Your task to perform on an android device: add a contact in the contacts app Image 0: 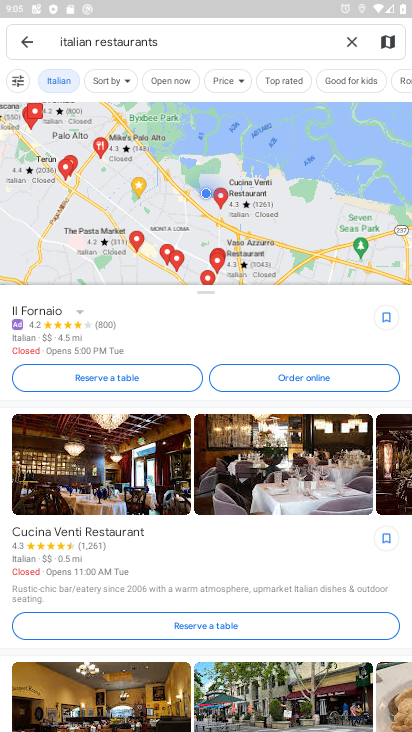
Step 0: press home button
Your task to perform on an android device: add a contact in the contacts app Image 1: 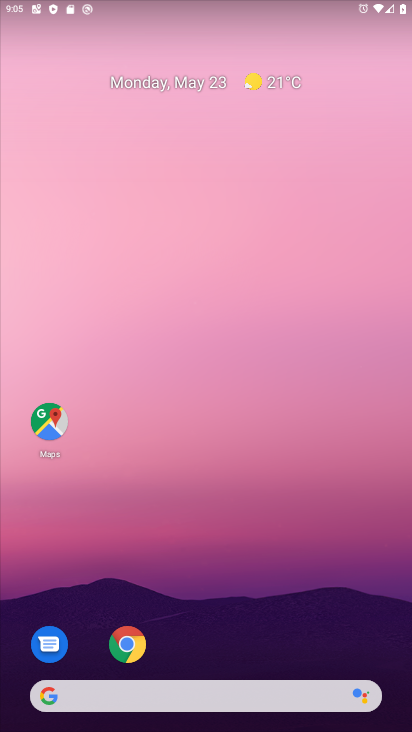
Step 1: drag from (288, 731) to (252, 1)
Your task to perform on an android device: add a contact in the contacts app Image 2: 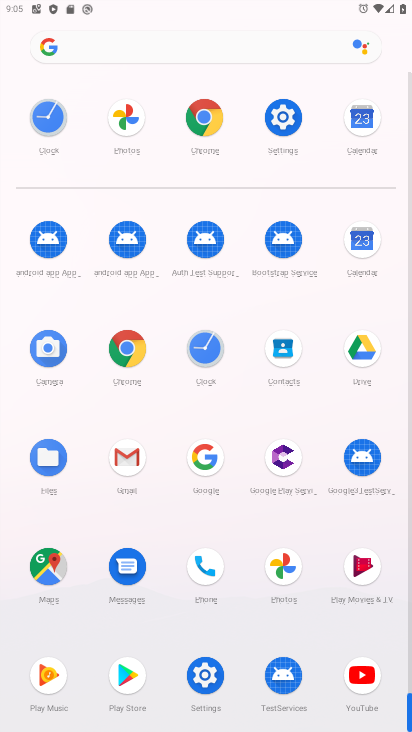
Step 2: click (278, 359)
Your task to perform on an android device: add a contact in the contacts app Image 3: 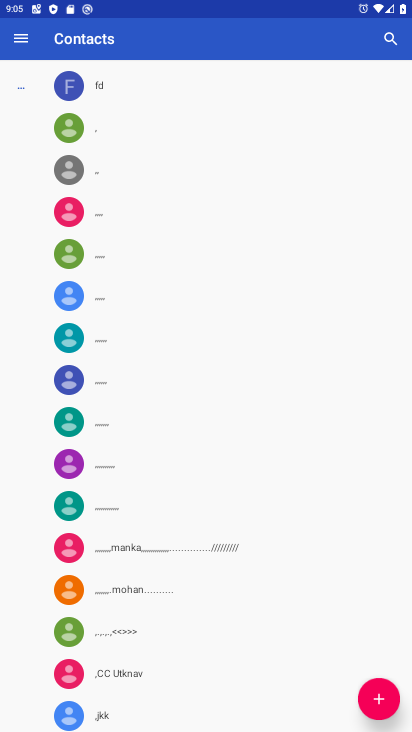
Step 3: click (383, 697)
Your task to perform on an android device: add a contact in the contacts app Image 4: 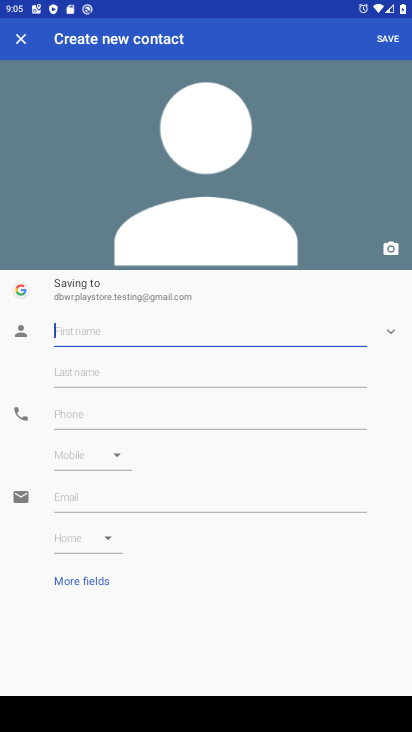
Step 4: type "jhfk"
Your task to perform on an android device: add a contact in the contacts app Image 5: 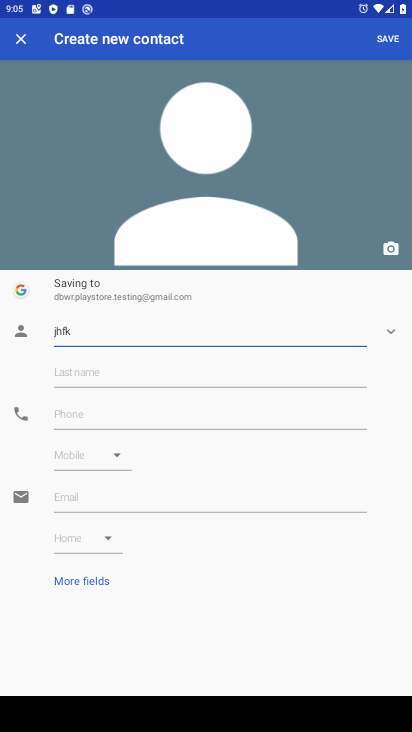
Step 5: click (120, 420)
Your task to perform on an android device: add a contact in the contacts app Image 6: 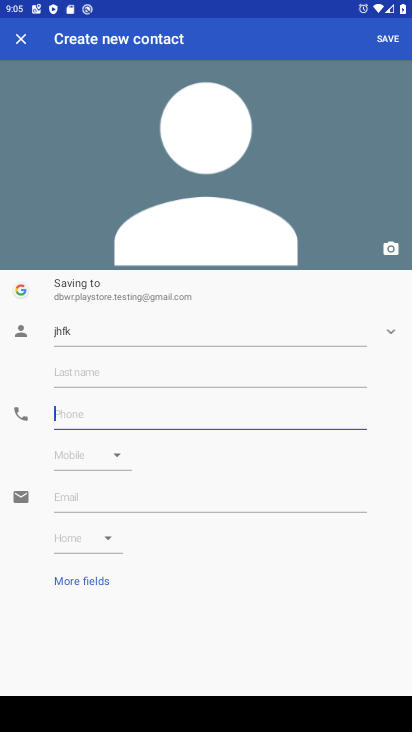
Step 6: type "768"
Your task to perform on an android device: add a contact in the contacts app Image 7: 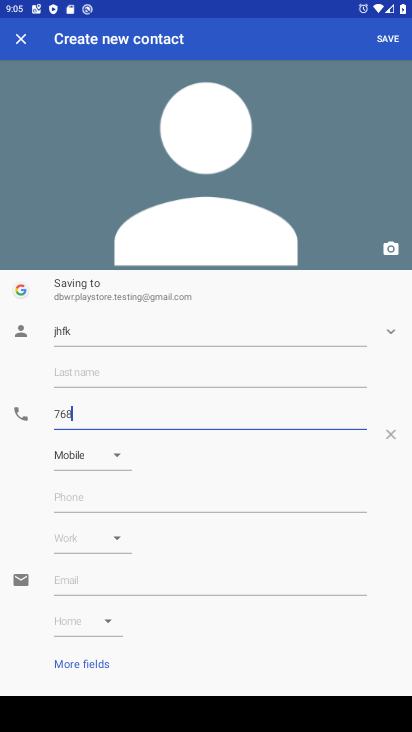
Step 7: click (397, 35)
Your task to perform on an android device: add a contact in the contacts app Image 8: 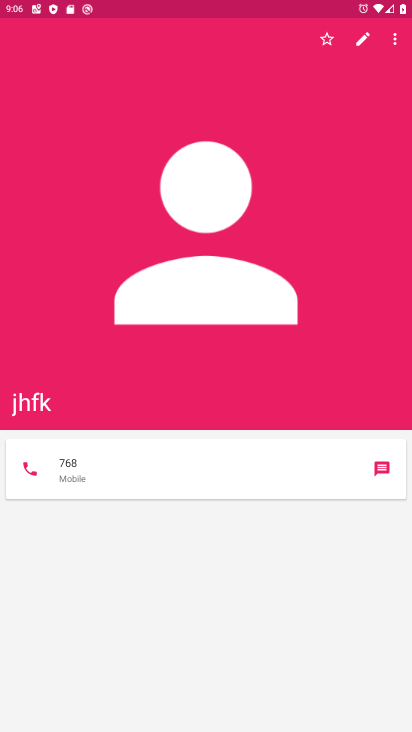
Step 8: task complete